Your task to perform on an android device: Play the last video I watched on Youtube Image 0: 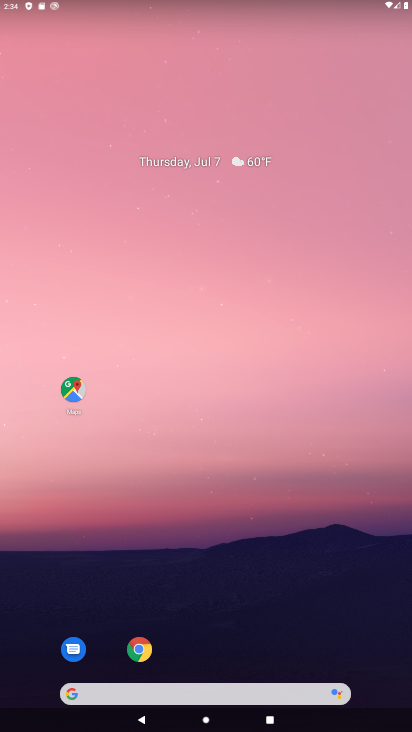
Step 0: drag from (203, 629) to (259, 102)
Your task to perform on an android device: Play the last video I watched on Youtube Image 1: 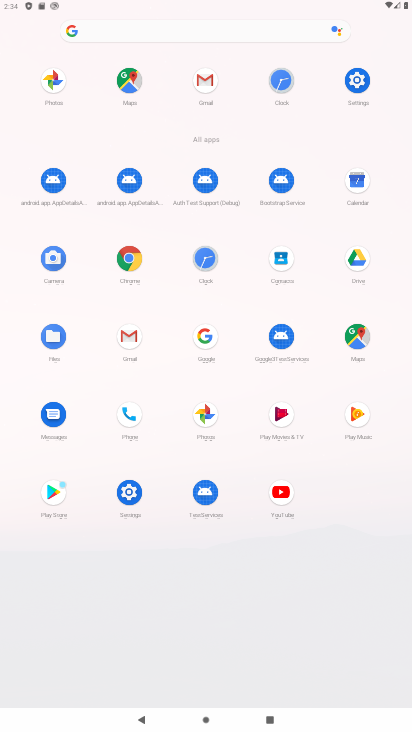
Step 1: click (292, 488)
Your task to perform on an android device: Play the last video I watched on Youtube Image 2: 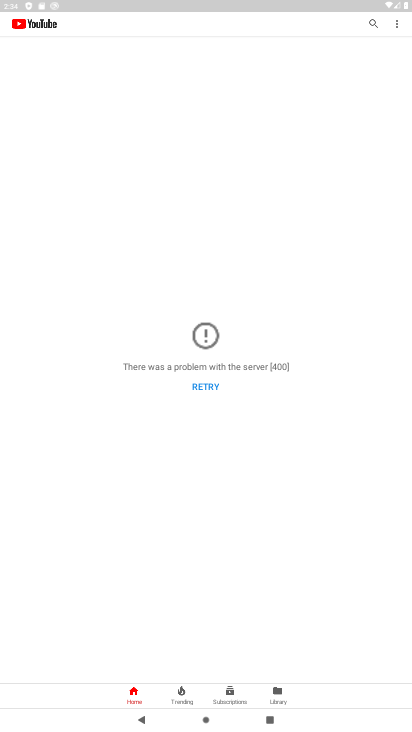
Step 2: click (271, 695)
Your task to perform on an android device: Play the last video I watched on Youtube Image 3: 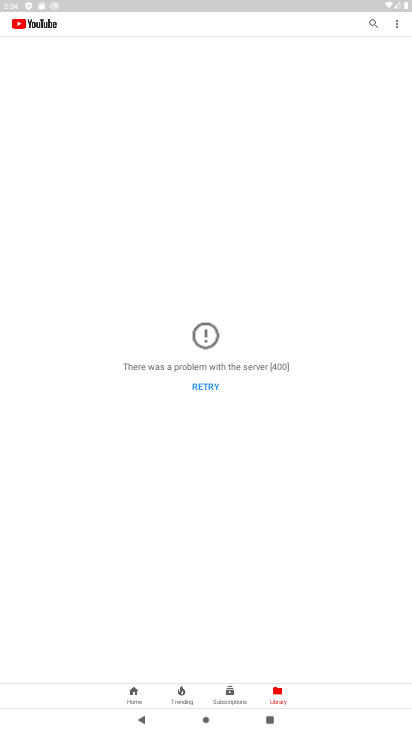
Step 3: task complete